Your task to perform on an android device: Open display settings Image 0: 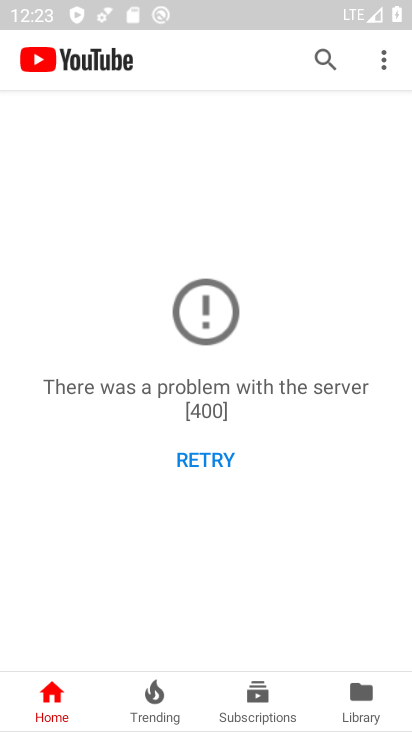
Step 0: press home button
Your task to perform on an android device: Open display settings Image 1: 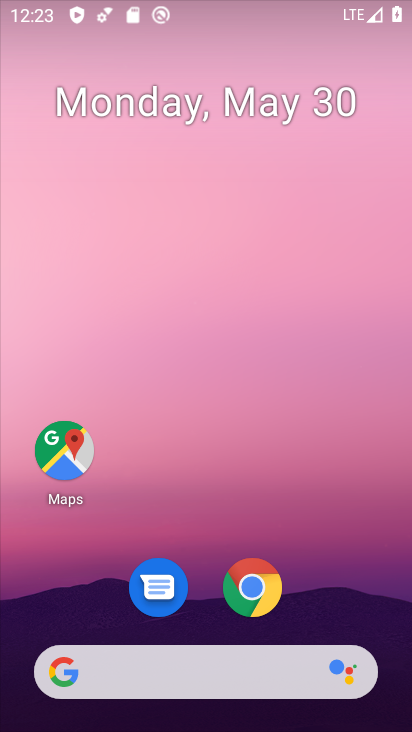
Step 1: drag from (301, 590) to (312, 117)
Your task to perform on an android device: Open display settings Image 2: 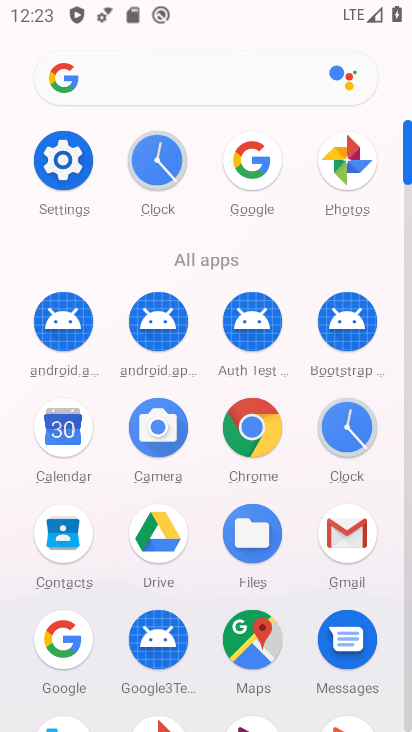
Step 2: click (66, 157)
Your task to perform on an android device: Open display settings Image 3: 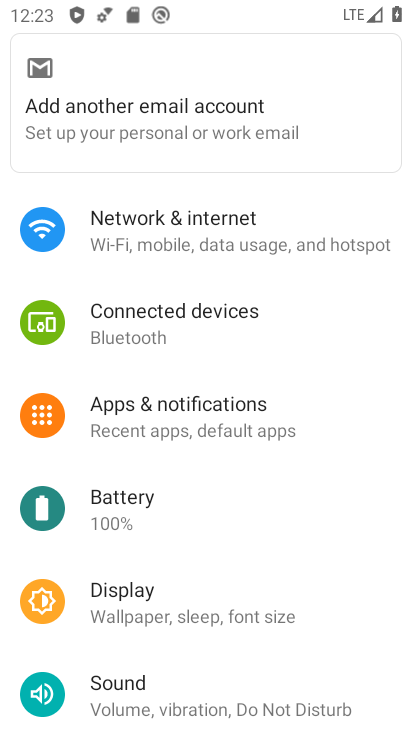
Step 3: click (155, 603)
Your task to perform on an android device: Open display settings Image 4: 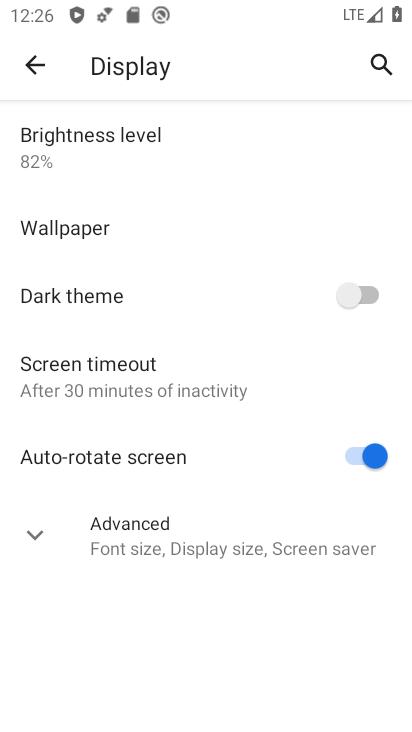
Step 4: task complete